Your task to perform on an android device: turn vacation reply on in the gmail app Image 0: 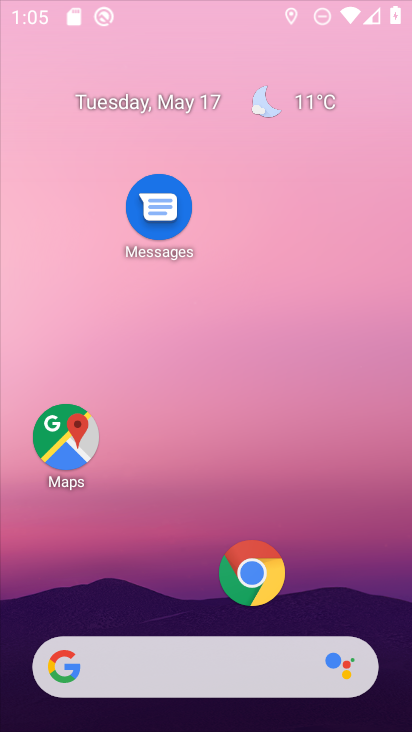
Step 0: click (213, 62)
Your task to perform on an android device: turn vacation reply on in the gmail app Image 1: 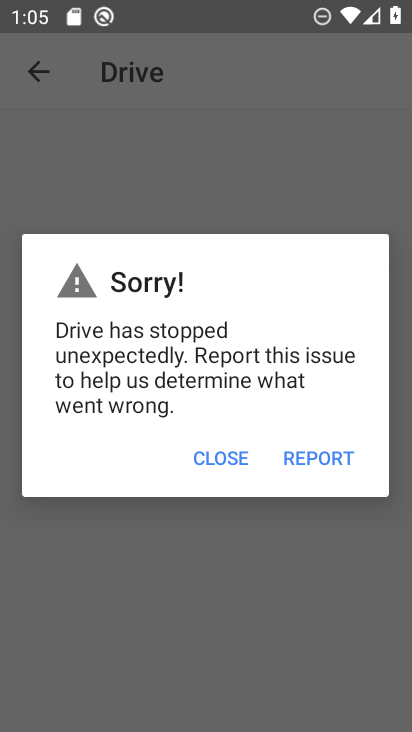
Step 1: press home button
Your task to perform on an android device: turn vacation reply on in the gmail app Image 2: 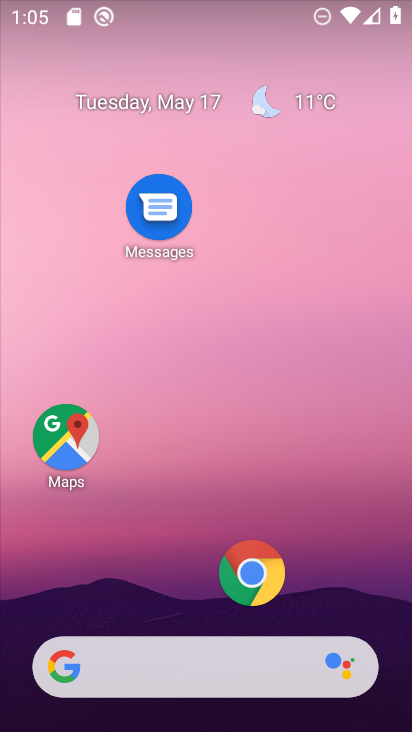
Step 2: drag from (208, 604) to (221, 120)
Your task to perform on an android device: turn vacation reply on in the gmail app Image 3: 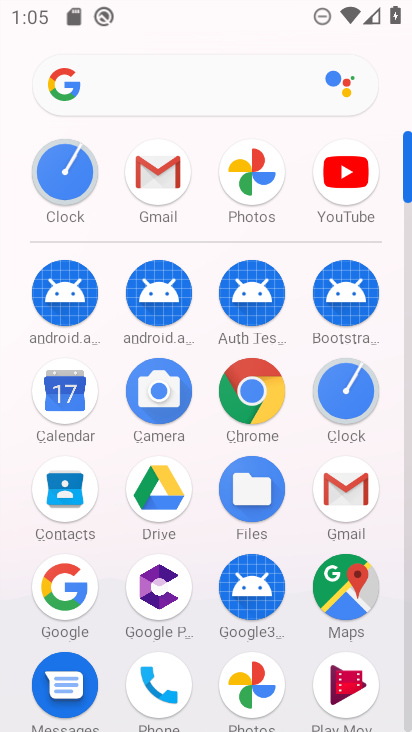
Step 3: click (157, 165)
Your task to perform on an android device: turn vacation reply on in the gmail app Image 4: 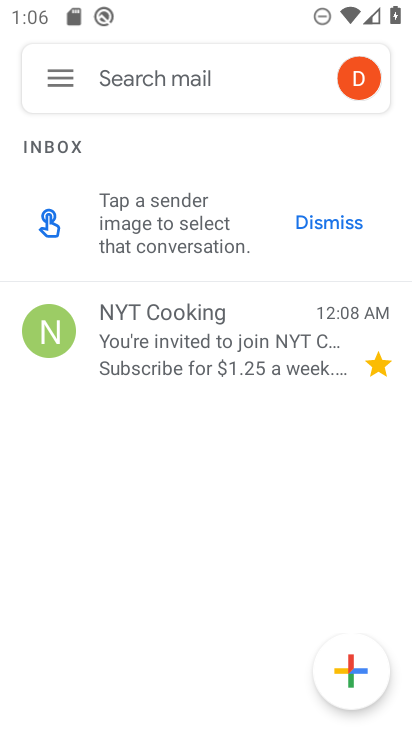
Step 4: click (64, 70)
Your task to perform on an android device: turn vacation reply on in the gmail app Image 5: 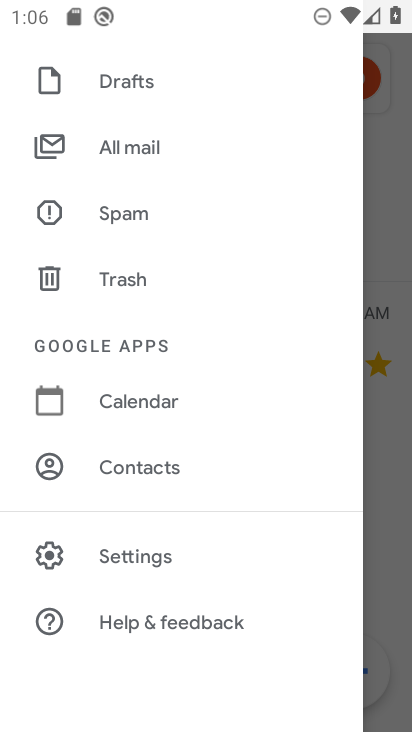
Step 5: click (172, 549)
Your task to perform on an android device: turn vacation reply on in the gmail app Image 6: 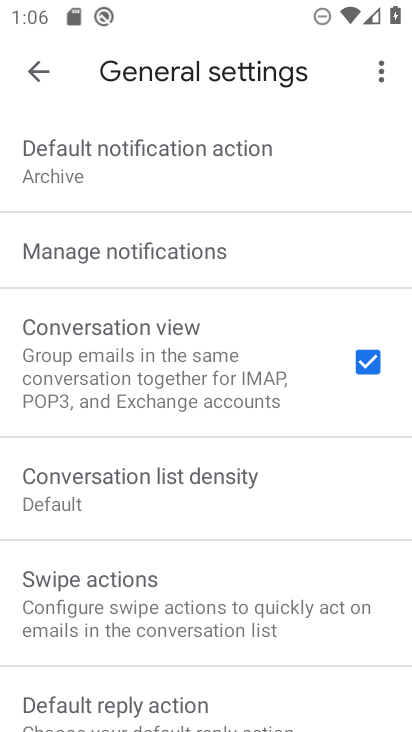
Step 6: click (39, 70)
Your task to perform on an android device: turn vacation reply on in the gmail app Image 7: 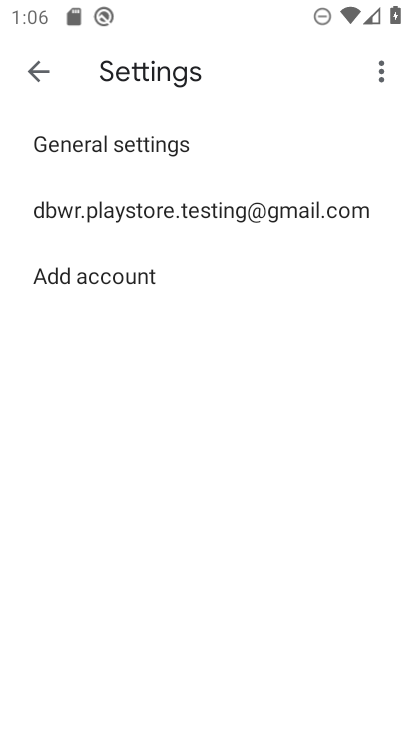
Step 7: click (368, 205)
Your task to perform on an android device: turn vacation reply on in the gmail app Image 8: 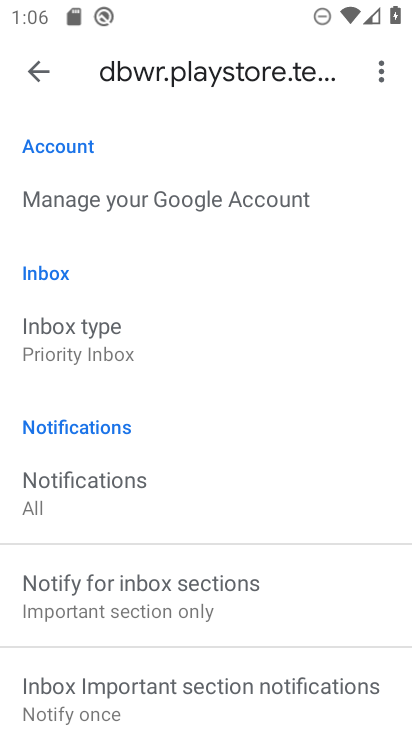
Step 8: drag from (232, 651) to (230, 108)
Your task to perform on an android device: turn vacation reply on in the gmail app Image 9: 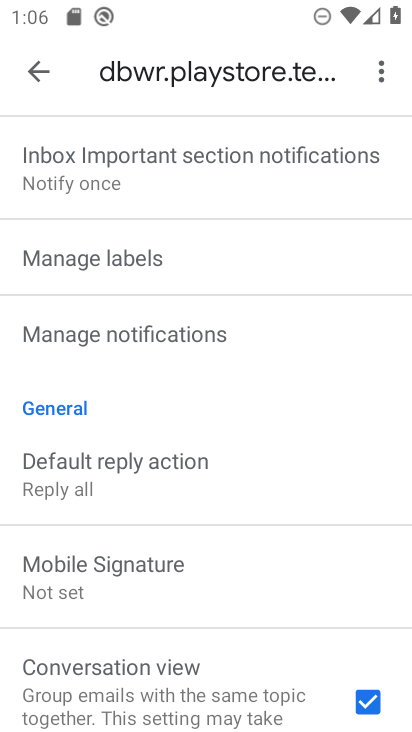
Step 9: drag from (237, 642) to (244, 188)
Your task to perform on an android device: turn vacation reply on in the gmail app Image 10: 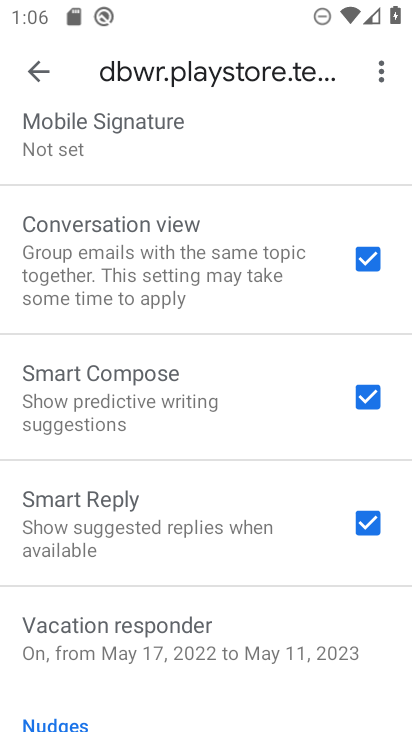
Step 10: click (225, 629)
Your task to perform on an android device: turn vacation reply on in the gmail app Image 11: 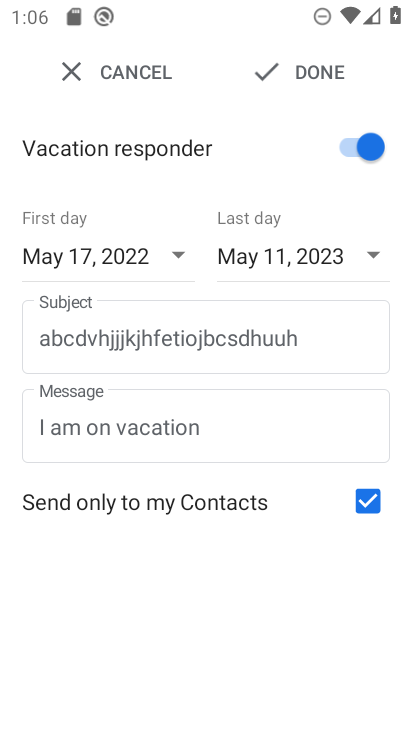
Step 11: task complete